Your task to perform on an android device: show emergency info Image 0: 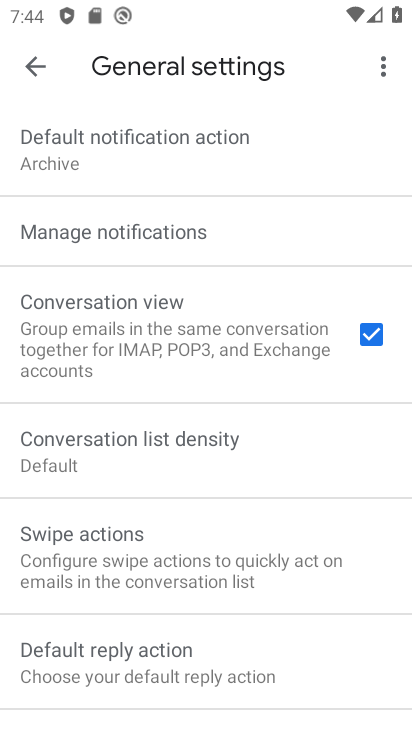
Step 0: press home button
Your task to perform on an android device: show emergency info Image 1: 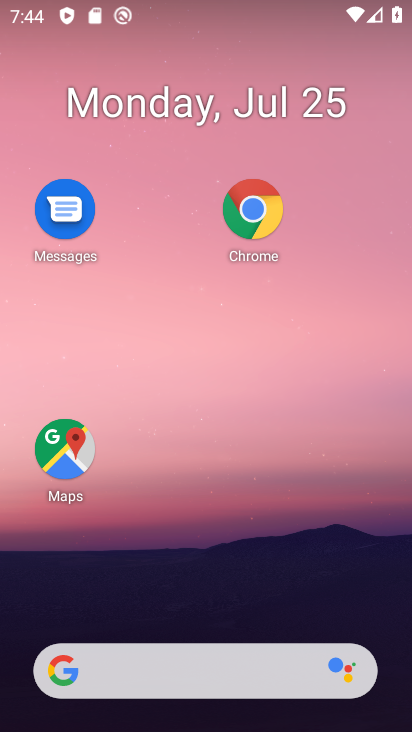
Step 1: drag from (215, 613) to (196, 115)
Your task to perform on an android device: show emergency info Image 2: 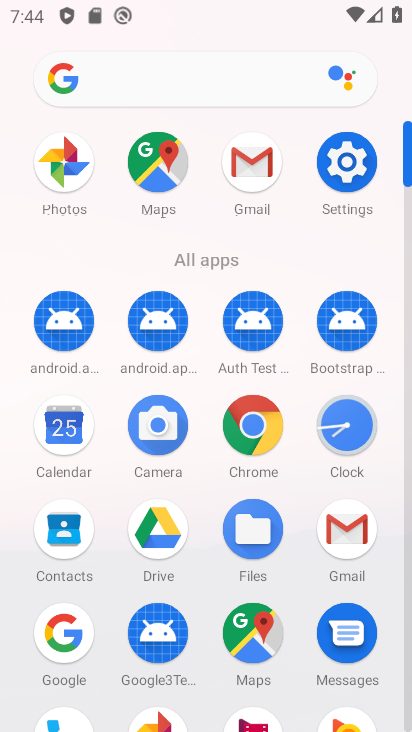
Step 2: click (313, 148)
Your task to perform on an android device: show emergency info Image 3: 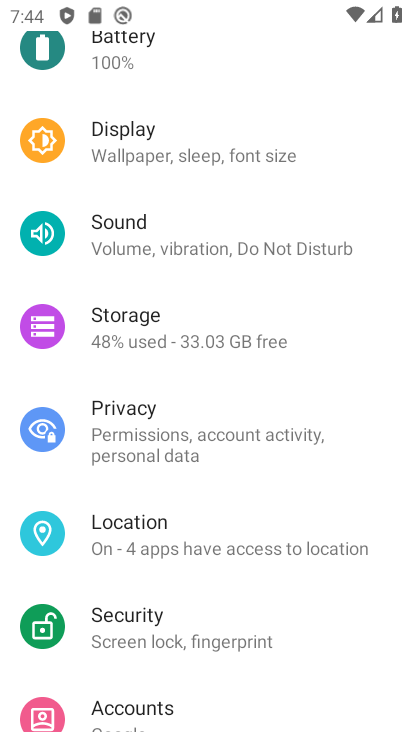
Step 3: drag from (164, 625) to (88, 91)
Your task to perform on an android device: show emergency info Image 4: 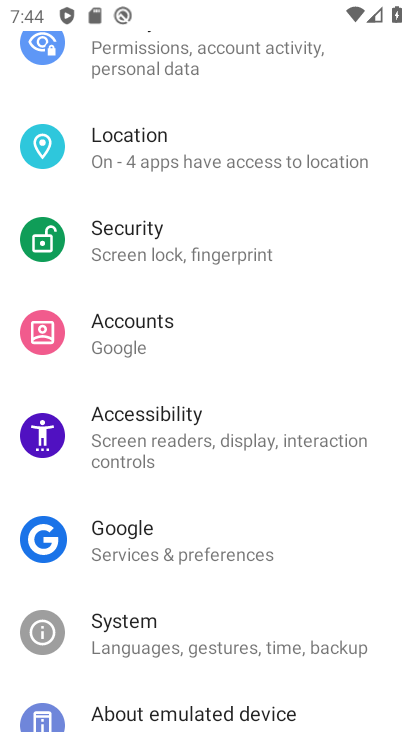
Step 4: click (82, 693)
Your task to perform on an android device: show emergency info Image 5: 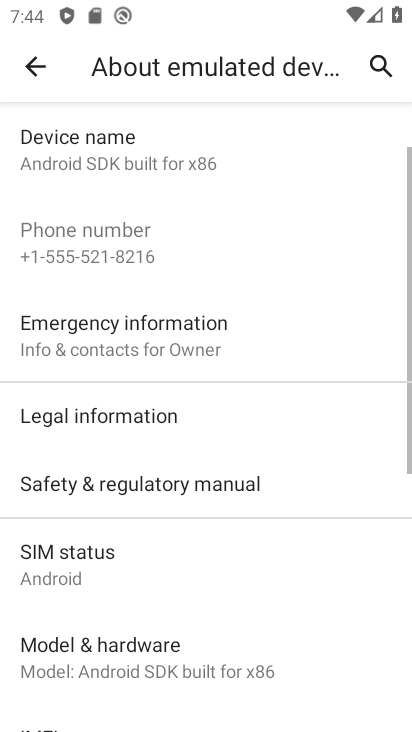
Step 5: click (124, 354)
Your task to perform on an android device: show emergency info Image 6: 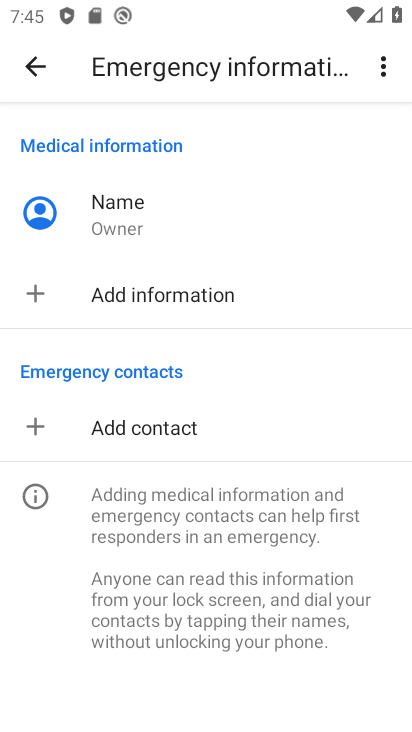
Step 6: task complete